Your task to perform on an android device: open sync settings in chrome Image 0: 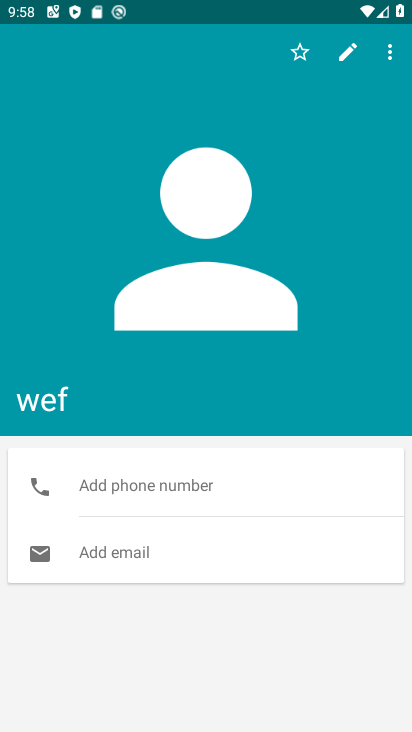
Step 0: press home button
Your task to perform on an android device: open sync settings in chrome Image 1: 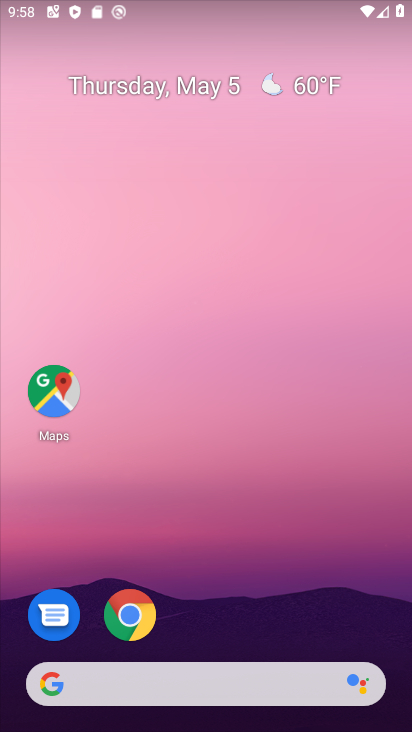
Step 1: click (133, 618)
Your task to perform on an android device: open sync settings in chrome Image 2: 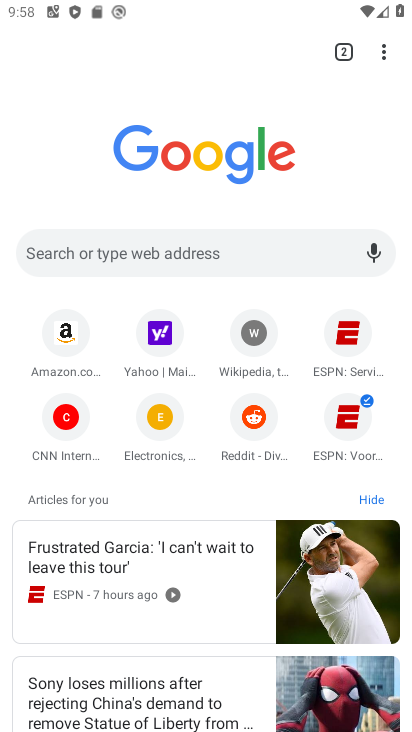
Step 2: click (381, 54)
Your task to perform on an android device: open sync settings in chrome Image 3: 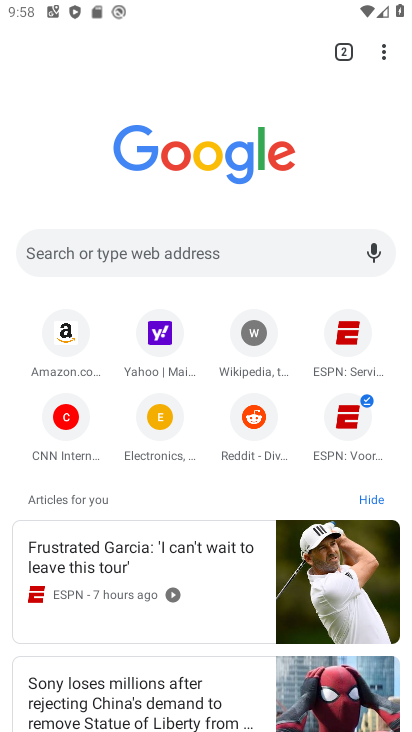
Step 3: click (375, 52)
Your task to perform on an android device: open sync settings in chrome Image 4: 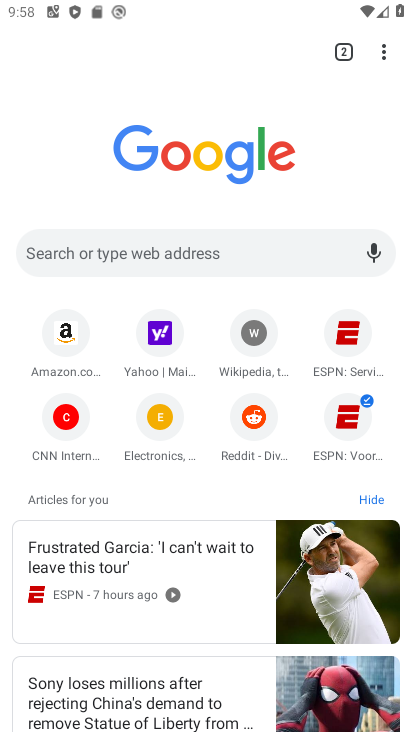
Step 4: click (375, 52)
Your task to perform on an android device: open sync settings in chrome Image 5: 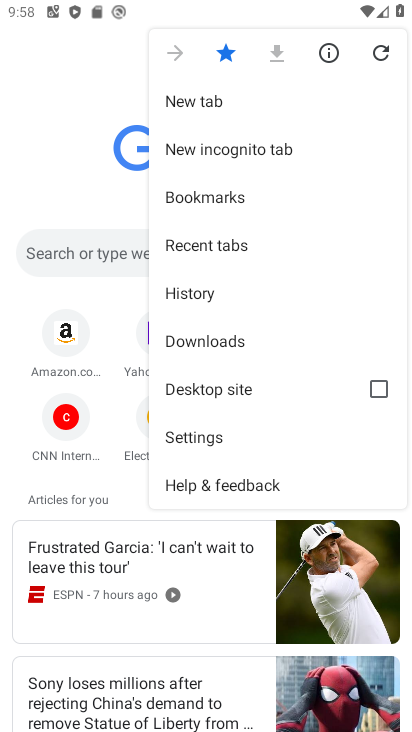
Step 5: click (244, 439)
Your task to perform on an android device: open sync settings in chrome Image 6: 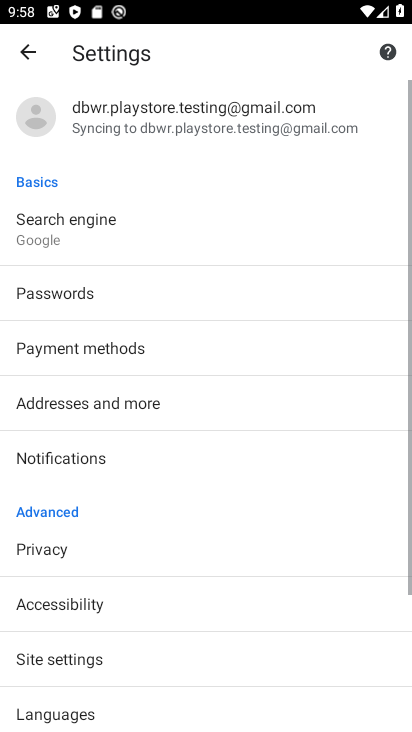
Step 6: drag from (204, 616) to (201, 409)
Your task to perform on an android device: open sync settings in chrome Image 7: 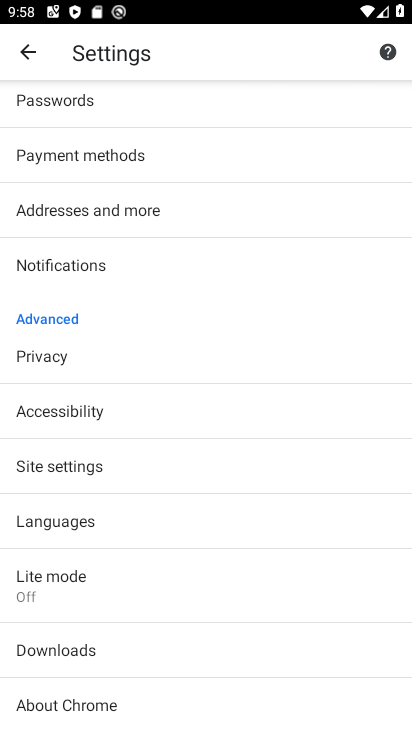
Step 7: drag from (202, 591) to (200, 434)
Your task to perform on an android device: open sync settings in chrome Image 8: 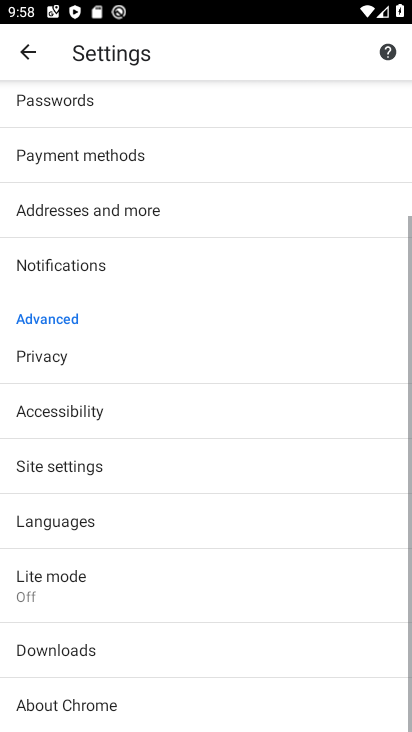
Step 8: click (83, 473)
Your task to perform on an android device: open sync settings in chrome Image 9: 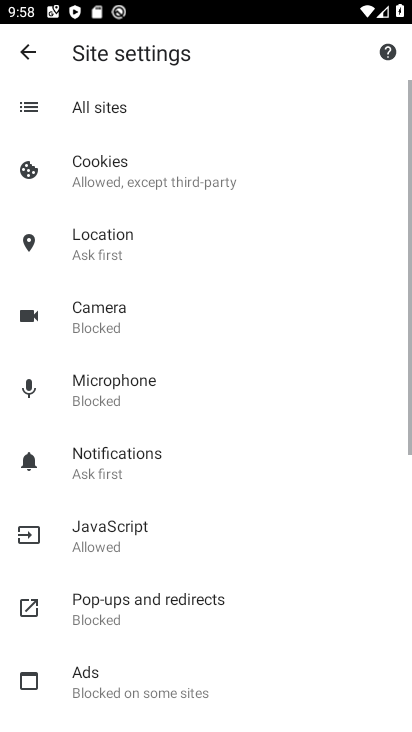
Step 9: drag from (203, 614) to (207, 450)
Your task to perform on an android device: open sync settings in chrome Image 10: 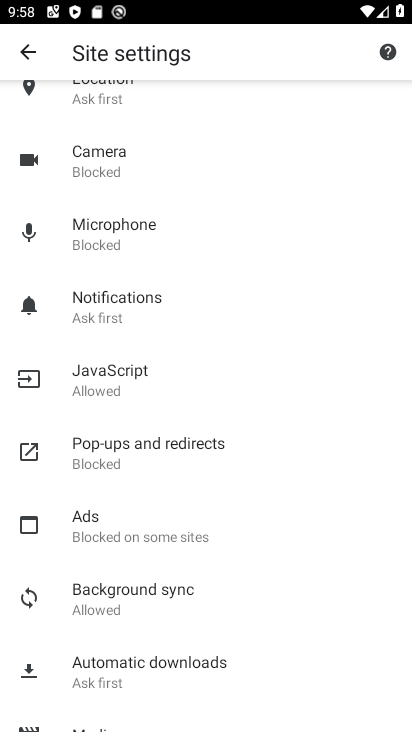
Step 10: drag from (182, 549) to (163, 508)
Your task to perform on an android device: open sync settings in chrome Image 11: 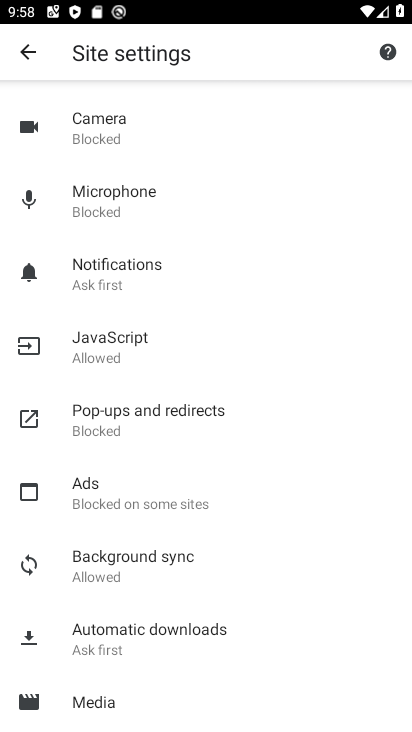
Step 11: drag from (169, 603) to (236, 638)
Your task to perform on an android device: open sync settings in chrome Image 12: 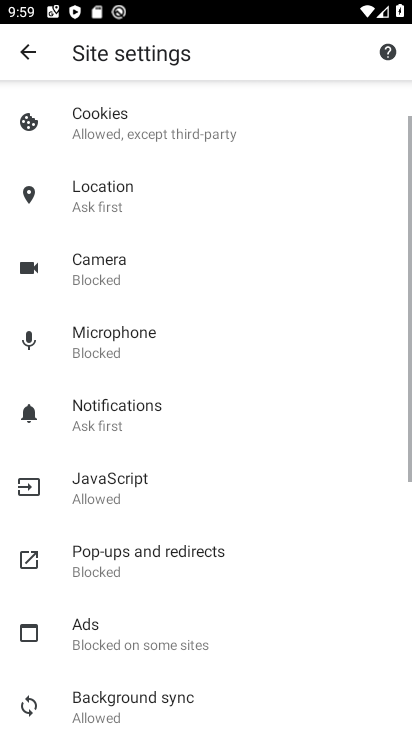
Step 12: drag from (160, 293) to (229, 80)
Your task to perform on an android device: open sync settings in chrome Image 13: 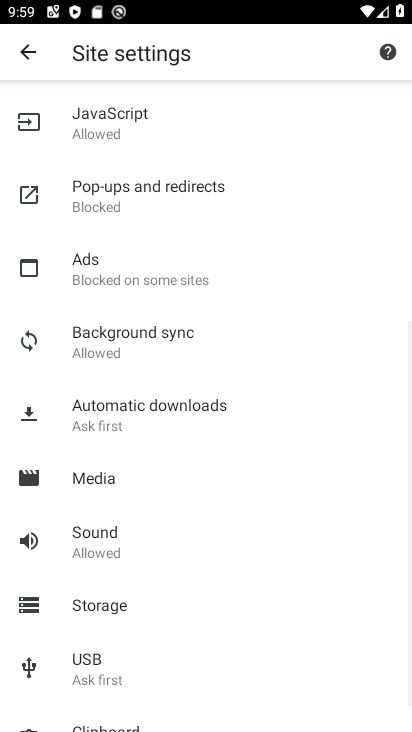
Step 13: drag from (152, 629) to (218, 280)
Your task to perform on an android device: open sync settings in chrome Image 14: 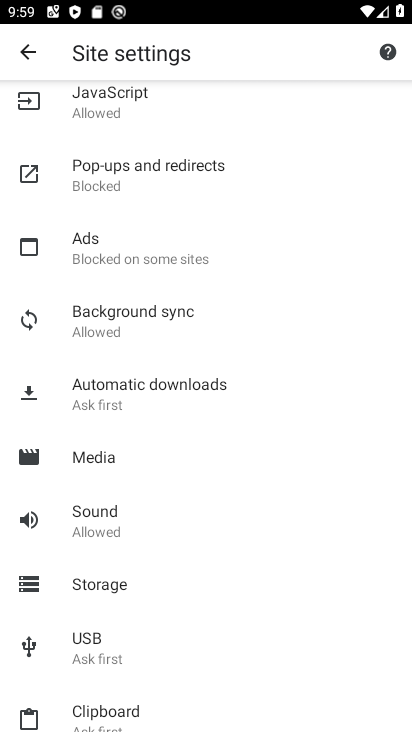
Step 14: click (141, 314)
Your task to perform on an android device: open sync settings in chrome Image 15: 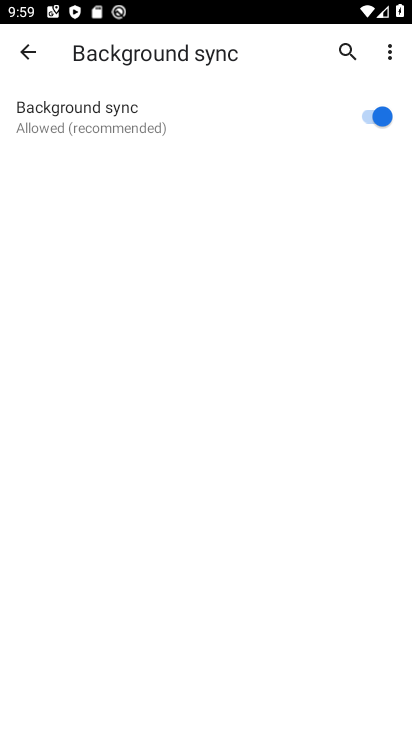
Step 15: task complete